Your task to perform on an android device: find photos in the google photos app Image 0: 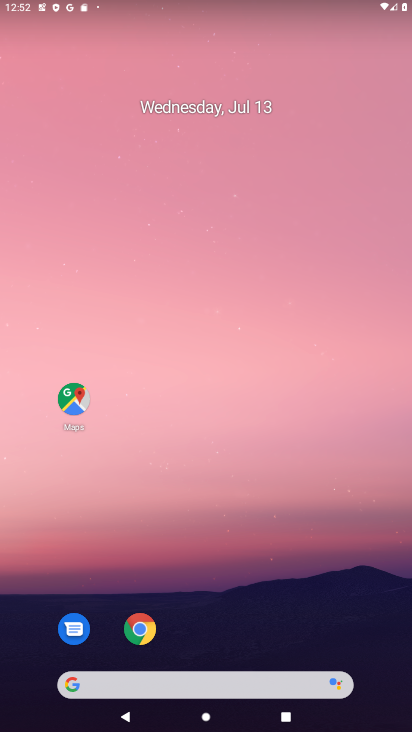
Step 0: drag from (207, 611) to (234, 352)
Your task to perform on an android device: find photos in the google photos app Image 1: 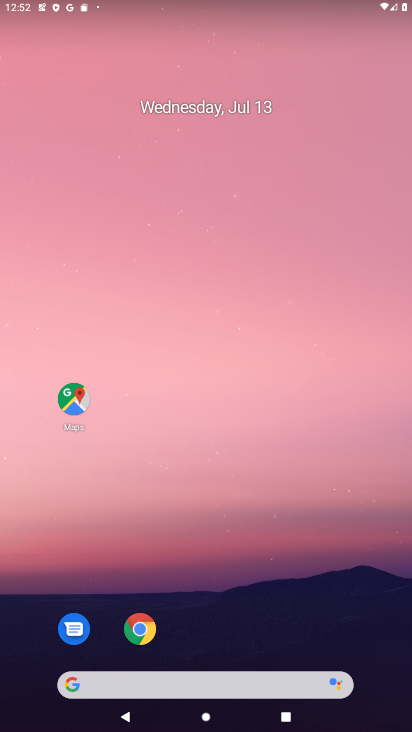
Step 1: drag from (204, 634) to (222, 347)
Your task to perform on an android device: find photos in the google photos app Image 2: 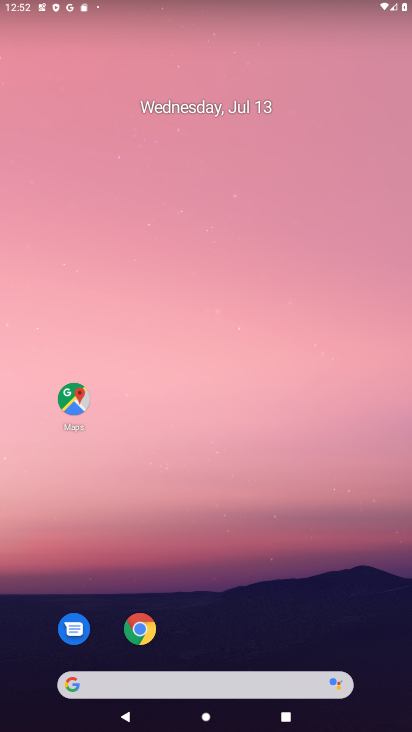
Step 2: drag from (219, 596) to (221, 216)
Your task to perform on an android device: find photos in the google photos app Image 3: 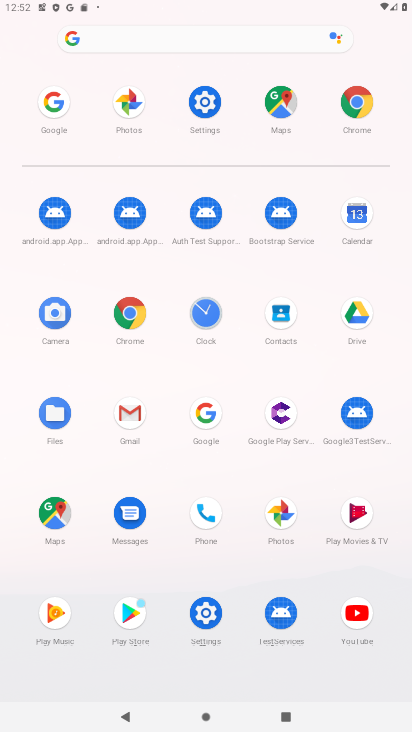
Step 3: click (279, 513)
Your task to perform on an android device: find photos in the google photos app Image 4: 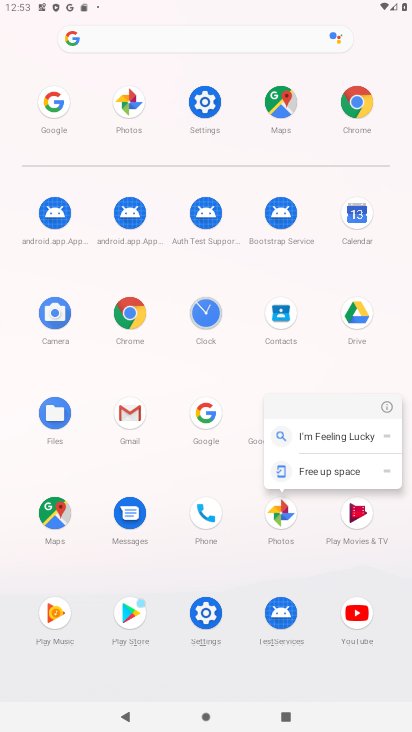
Step 4: click (277, 513)
Your task to perform on an android device: find photos in the google photos app Image 5: 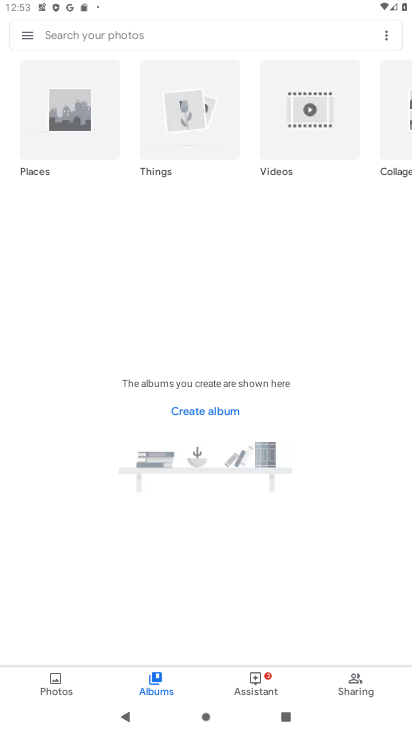
Step 5: task complete